Your task to perform on an android device: Turn on the flashlight Image 0: 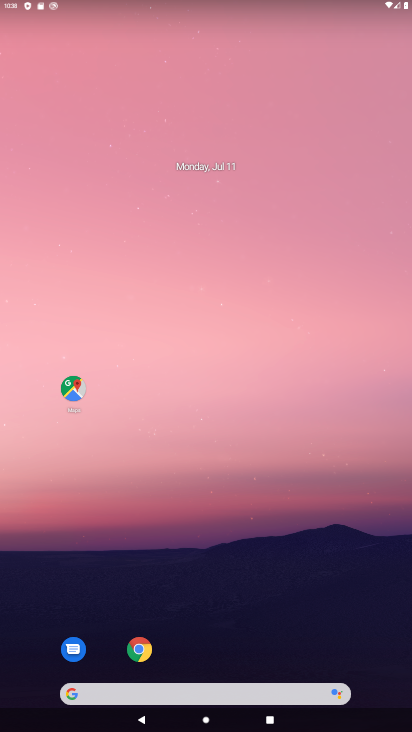
Step 0: drag from (315, 496) to (284, 29)
Your task to perform on an android device: Turn on the flashlight Image 1: 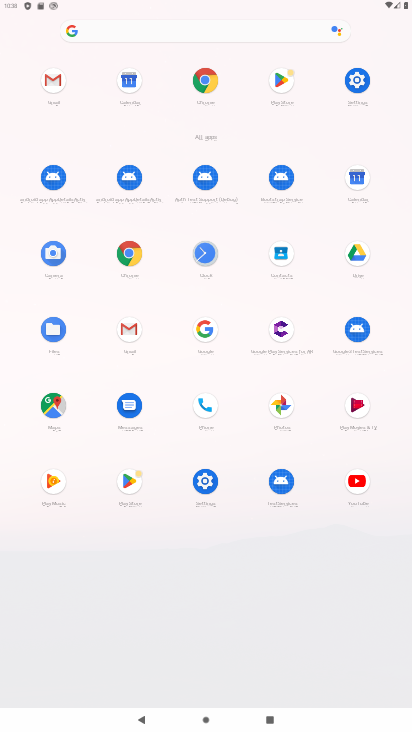
Step 1: click (359, 75)
Your task to perform on an android device: Turn on the flashlight Image 2: 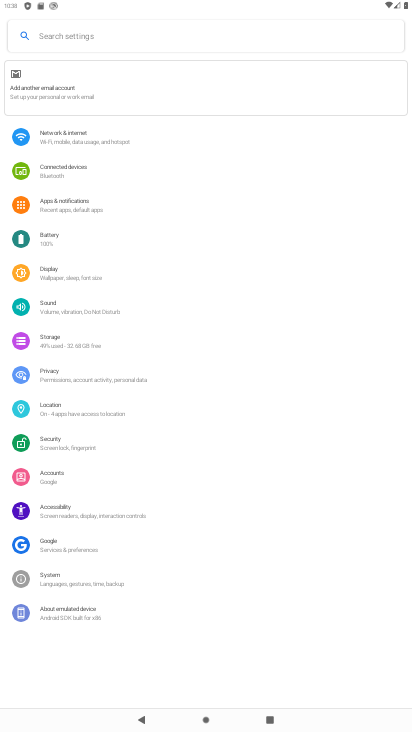
Step 2: click (78, 275)
Your task to perform on an android device: Turn on the flashlight Image 3: 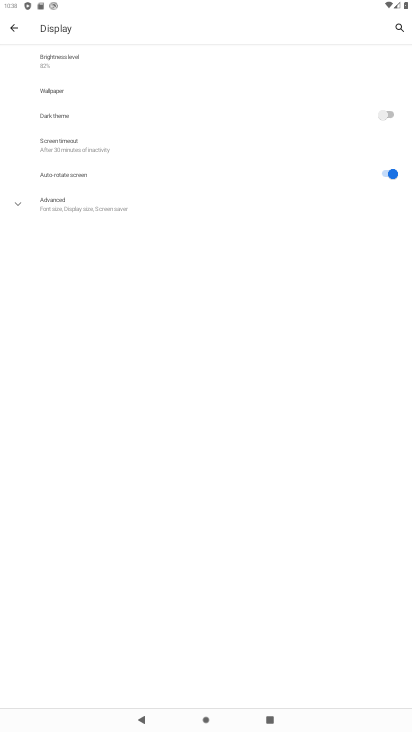
Step 3: task complete